Your task to perform on an android device: turn off notifications in google photos Image 0: 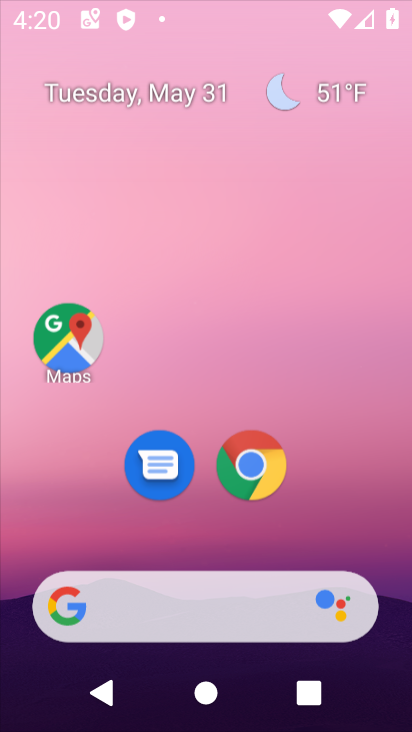
Step 0: press home button
Your task to perform on an android device: turn off notifications in google photos Image 1: 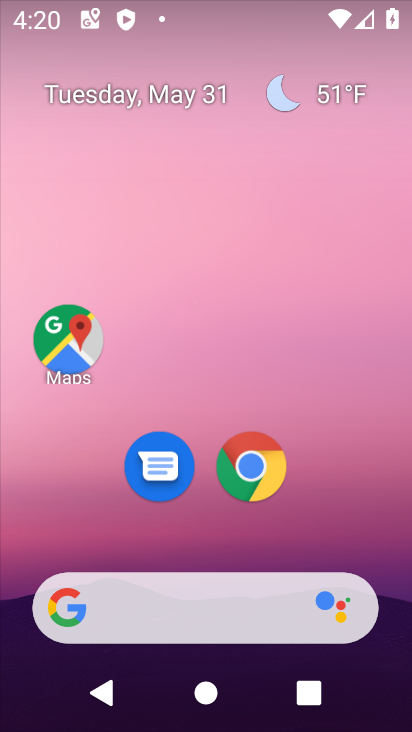
Step 1: drag from (209, 541) to (259, 7)
Your task to perform on an android device: turn off notifications in google photos Image 2: 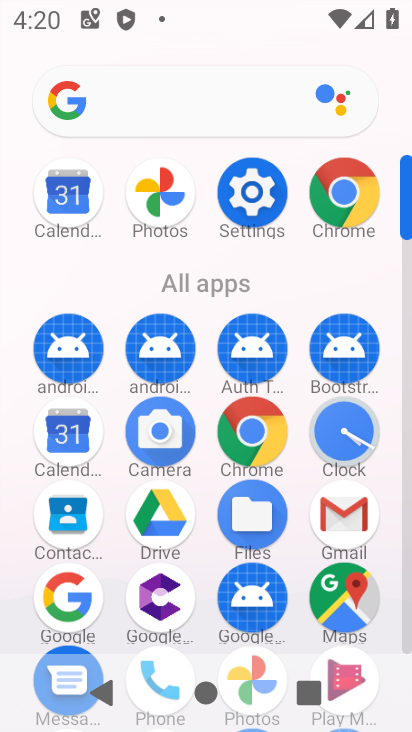
Step 2: drag from (207, 569) to (232, 199)
Your task to perform on an android device: turn off notifications in google photos Image 3: 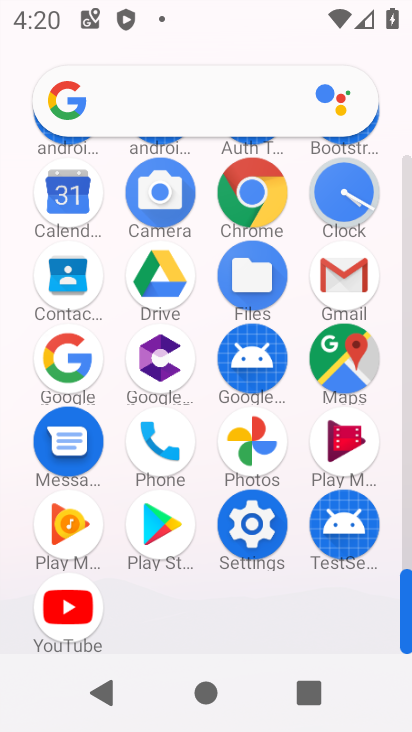
Step 3: click (252, 436)
Your task to perform on an android device: turn off notifications in google photos Image 4: 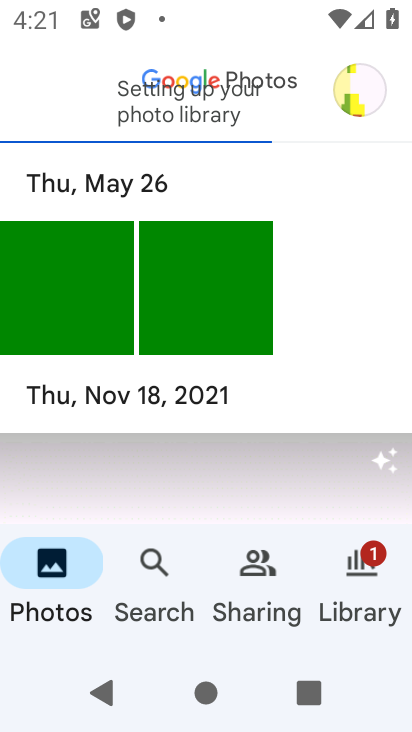
Step 4: click (365, 85)
Your task to perform on an android device: turn off notifications in google photos Image 5: 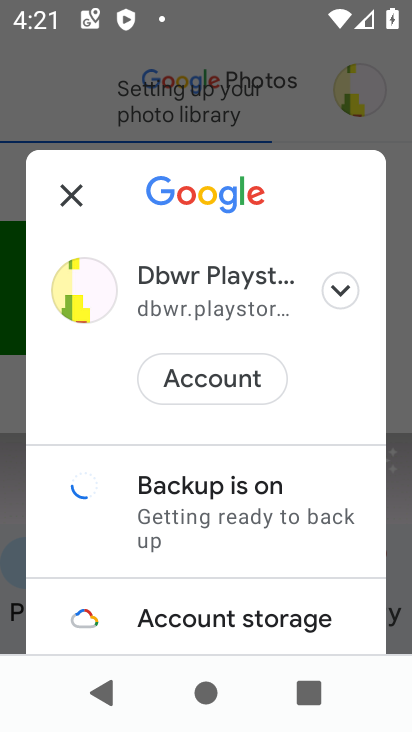
Step 5: drag from (222, 556) to (218, 159)
Your task to perform on an android device: turn off notifications in google photos Image 6: 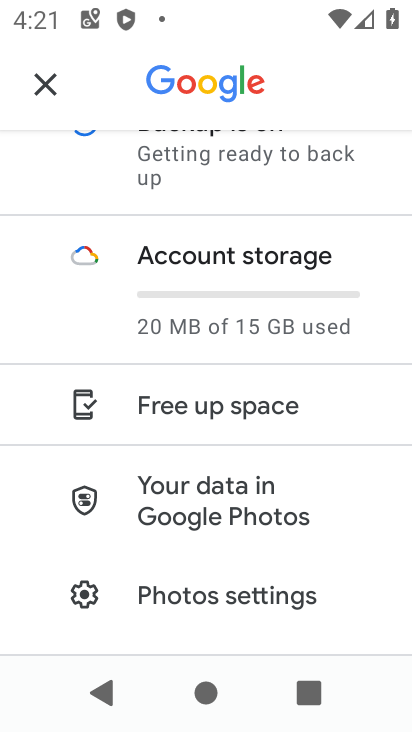
Step 6: drag from (175, 583) to (225, 179)
Your task to perform on an android device: turn off notifications in google photos Image 7: 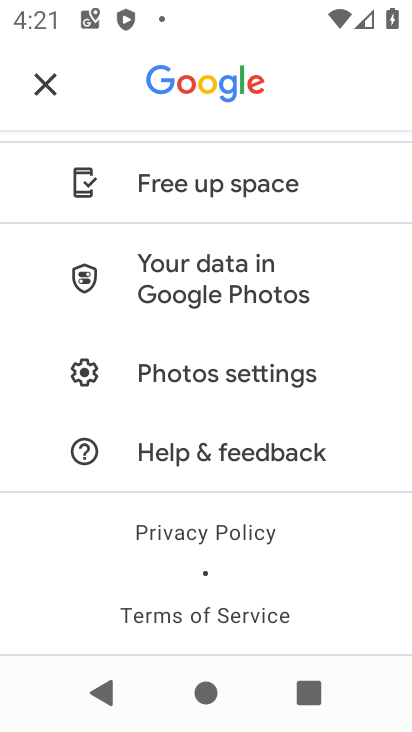
Step 7: click (184, 376)
Your task to perform on an android device: turn off notifications in google photos Image 8: 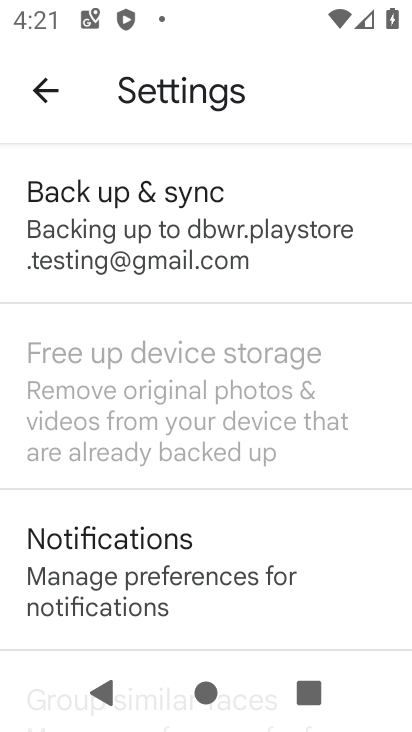
Step 8: click (212, 560)
Your task to perform on an android device: turn off notifications in google photos Image 9: 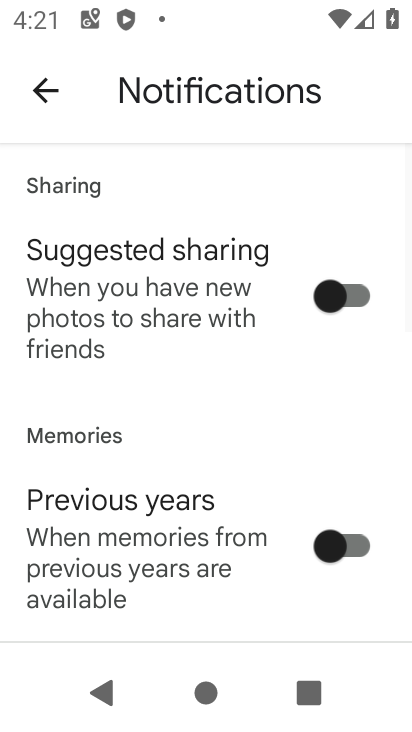
Step 9: drag from (222, 565) to (235, 28)
Your task to perform on an android device: turn off notifications in google photos Image 10: 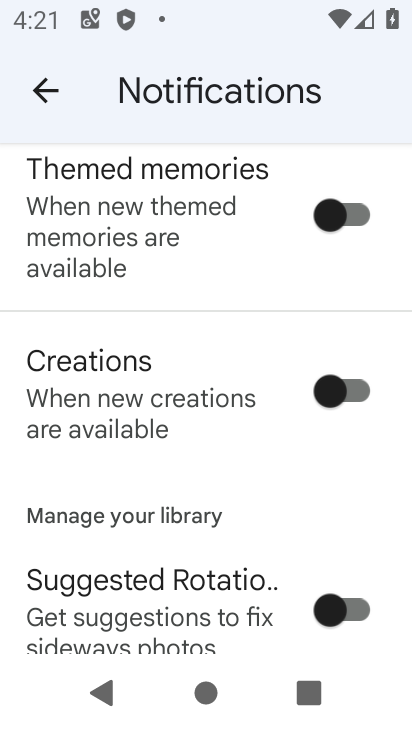
Step 10: drag from (184, 568) to (205, 86)
Your task to perform on an android device: turn off notifications in google photos Image 11: 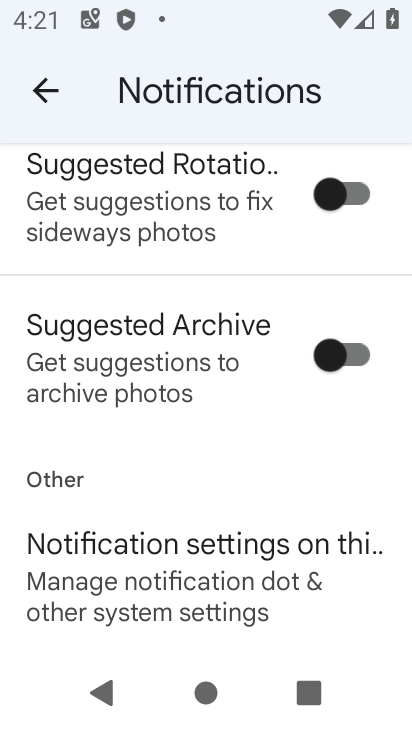
Step 11: drag from (169, 595) to (170, 312)
Your task to perform on an android device: turn off notifications in google photos Image 12: 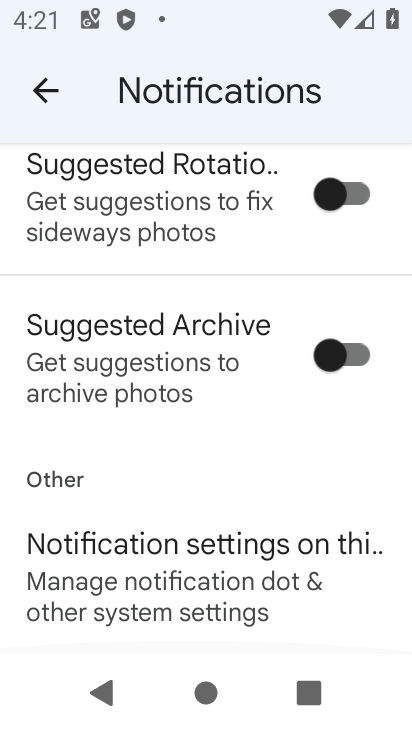
Step 12: click (198, 567)
Your task to perform on an android device: turn off notifications in google photos Image 13: 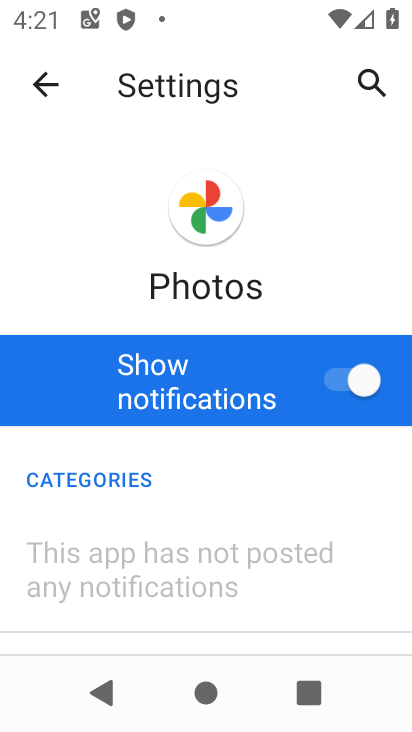
Step 13: click (340, 377)
Your task to perform on an android device: turn off notifications in google photos Image 14: 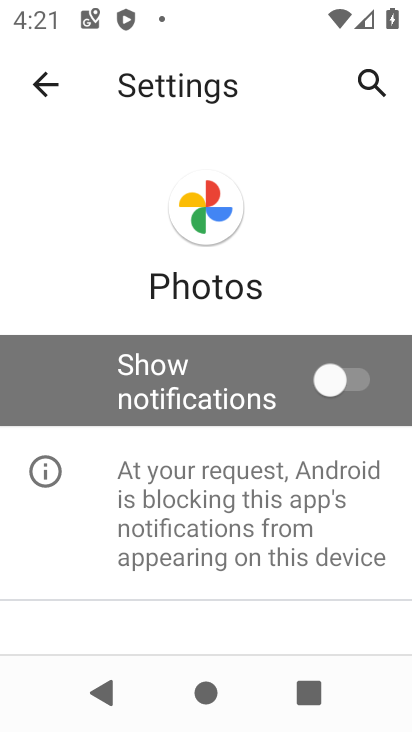
Step 14: task complete